Your task to perform on an android device: turn on translation in the chrome app Image 0: 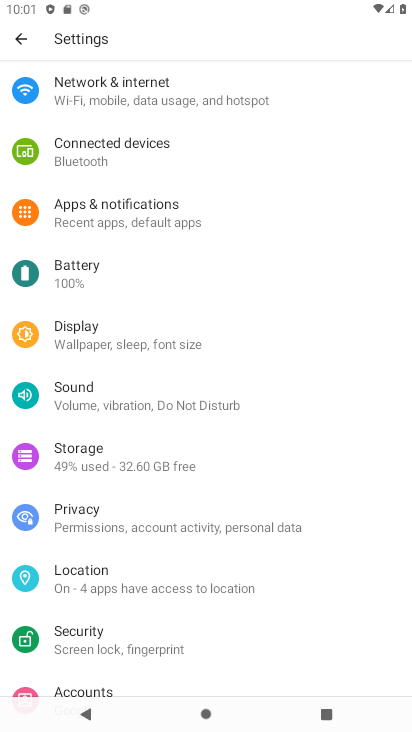
Step 0: press home button
Your task to perform on an android device: turn on translation in the chrome app Image 1: 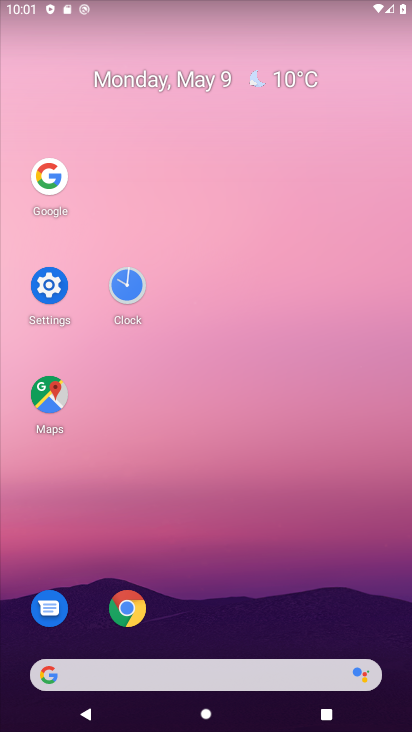
Step 1: click (135, 597)
Your task to perform on an android device: turn on translation in the chrome app Image 2: 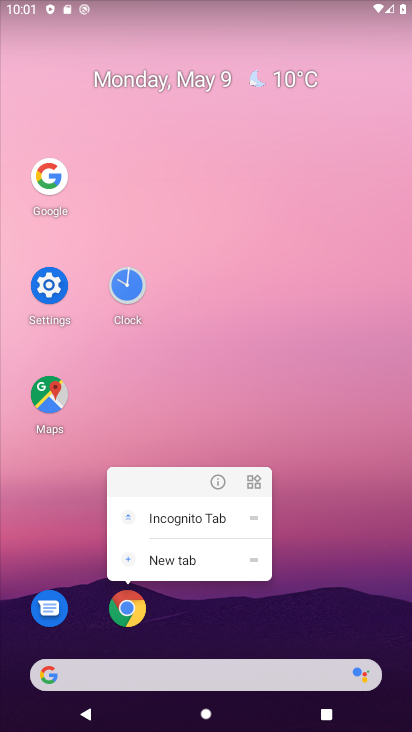
Step 2: click (132, 604)
Your task to perform on an android device: turn on translation in the chrome app Image 3: 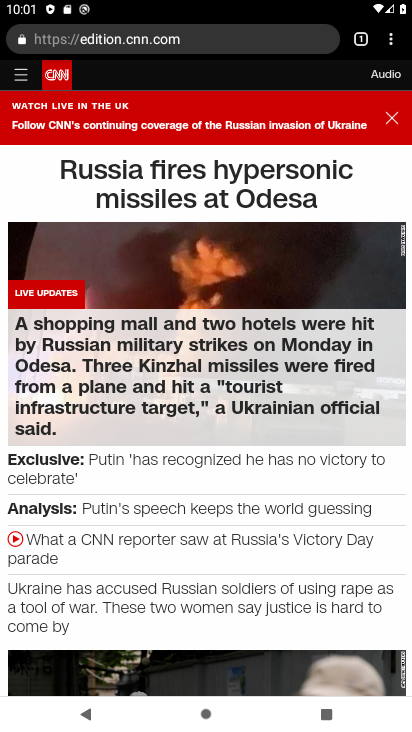
Step 3: click (396, 38)
Your task to perform on an android device: turn on translation in the chrome app Image 4: 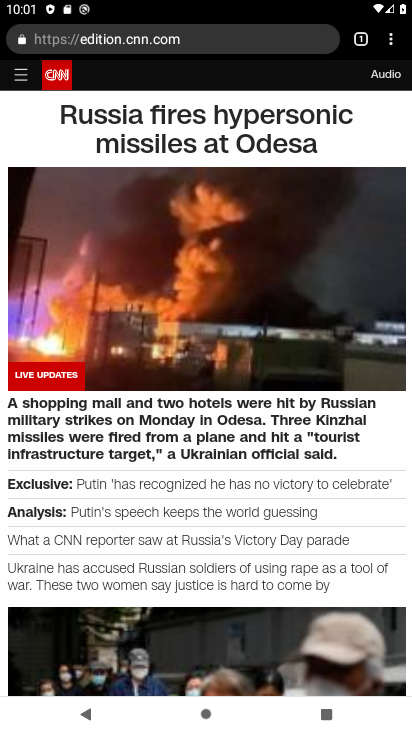
Step 4: click (395, 51)
Your task to perform on an android device: turn on translation in the chrome app Image 5: 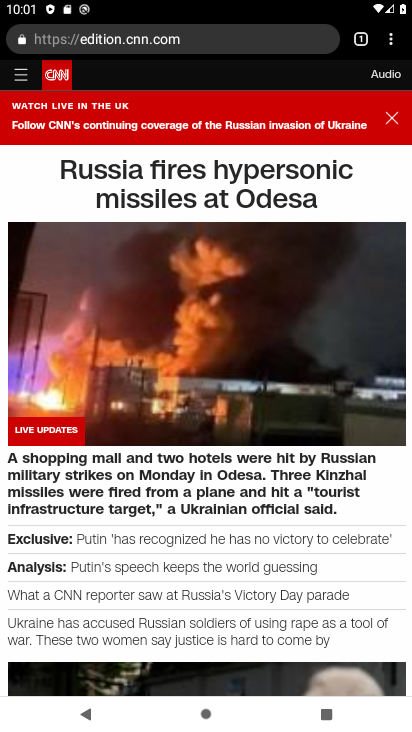
Step 5: click (394, 39)
Your task to perform on an android device: turn on translation in the chrome app Image 6: 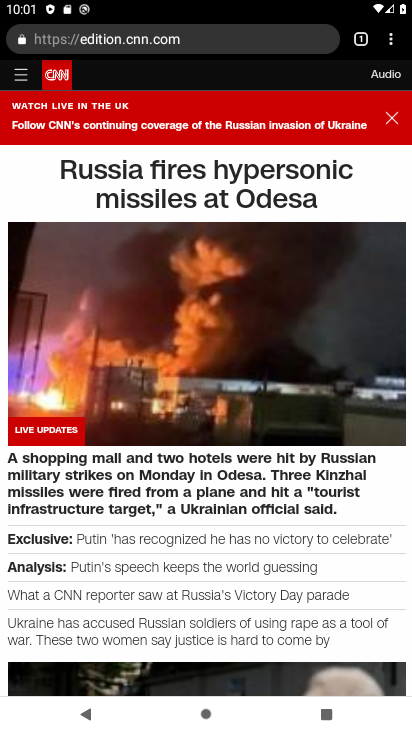
Step 6: click (394, 39)
Your task to perform on an android device: turn on translation in the chrome app Image 7: 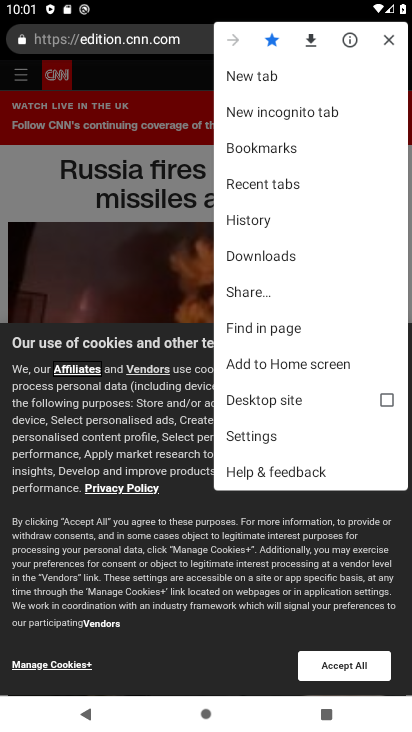
Step 7: click (262, 439)
Your task to perform on an android device: turn on translation in the chrome app Image 8: 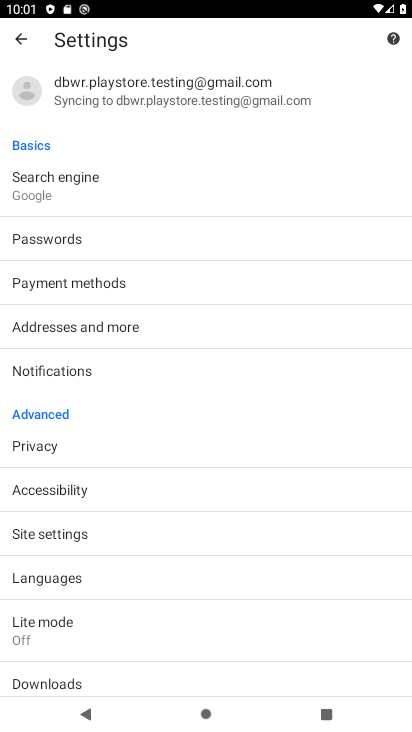
Step 8: click (70, 565)
Your task to perform on an android device: turn on translation in the chrome app Image 9: 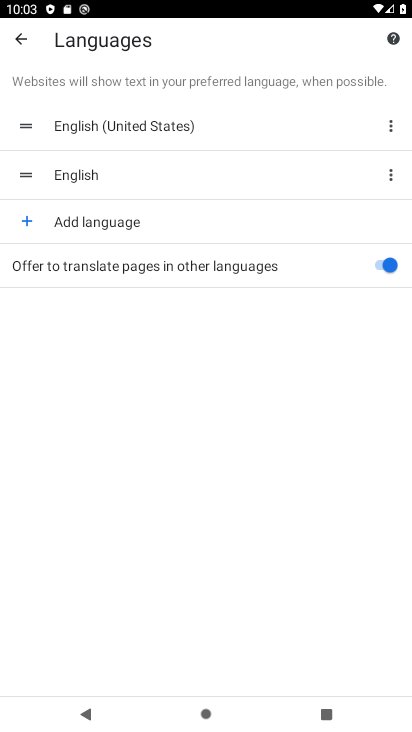
Step 9: task complete